Your task to perform on an android device: open app "Airtel Thanks" (install if not already installed) and go to login screen Image 0: 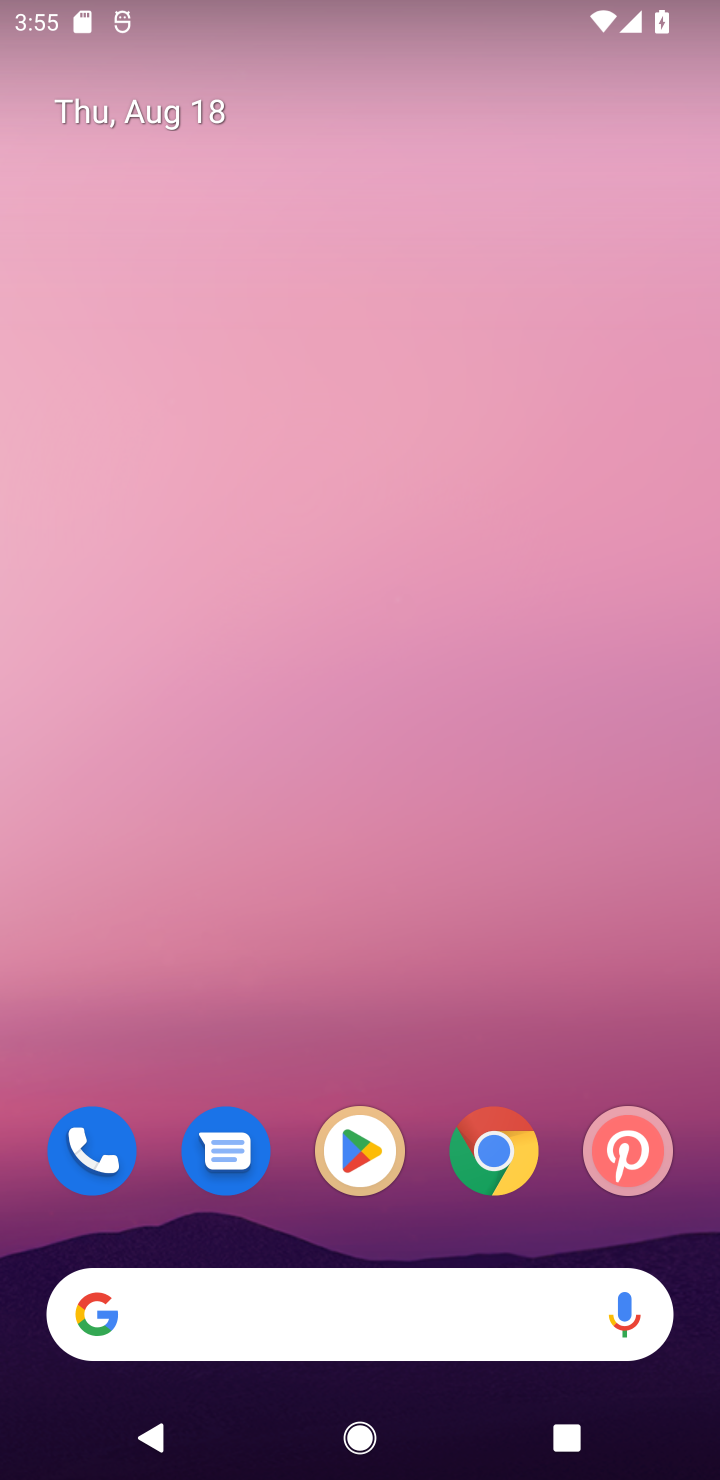
Step 0: click (382, 1125)
Your task to perform on an android device: open app "Airtel Thanks" (install if not already installed) and go to login screen Image 1: 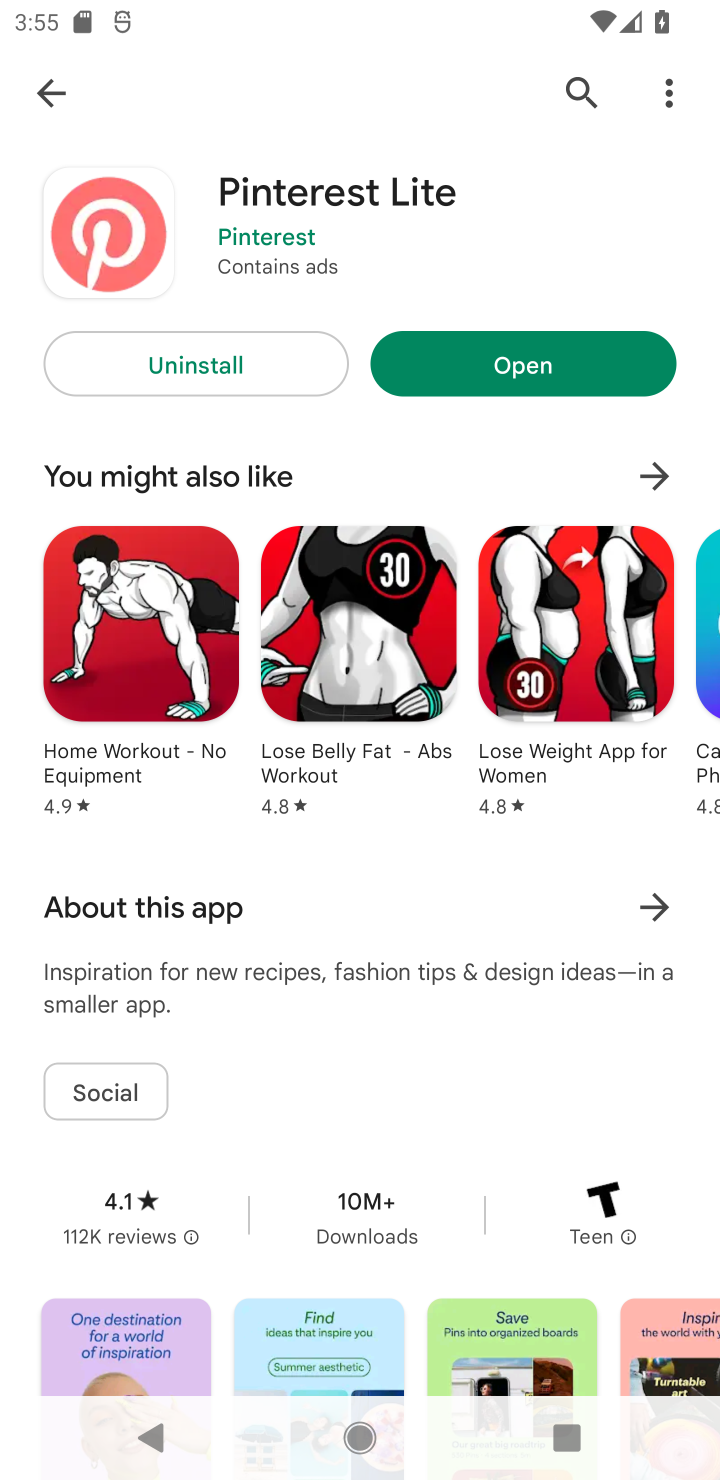
Step 1: click (553, 109)
Your task to perform on an android device: open app "Airtel Thanks" (install if not already installed) and go to login screen Image 2: 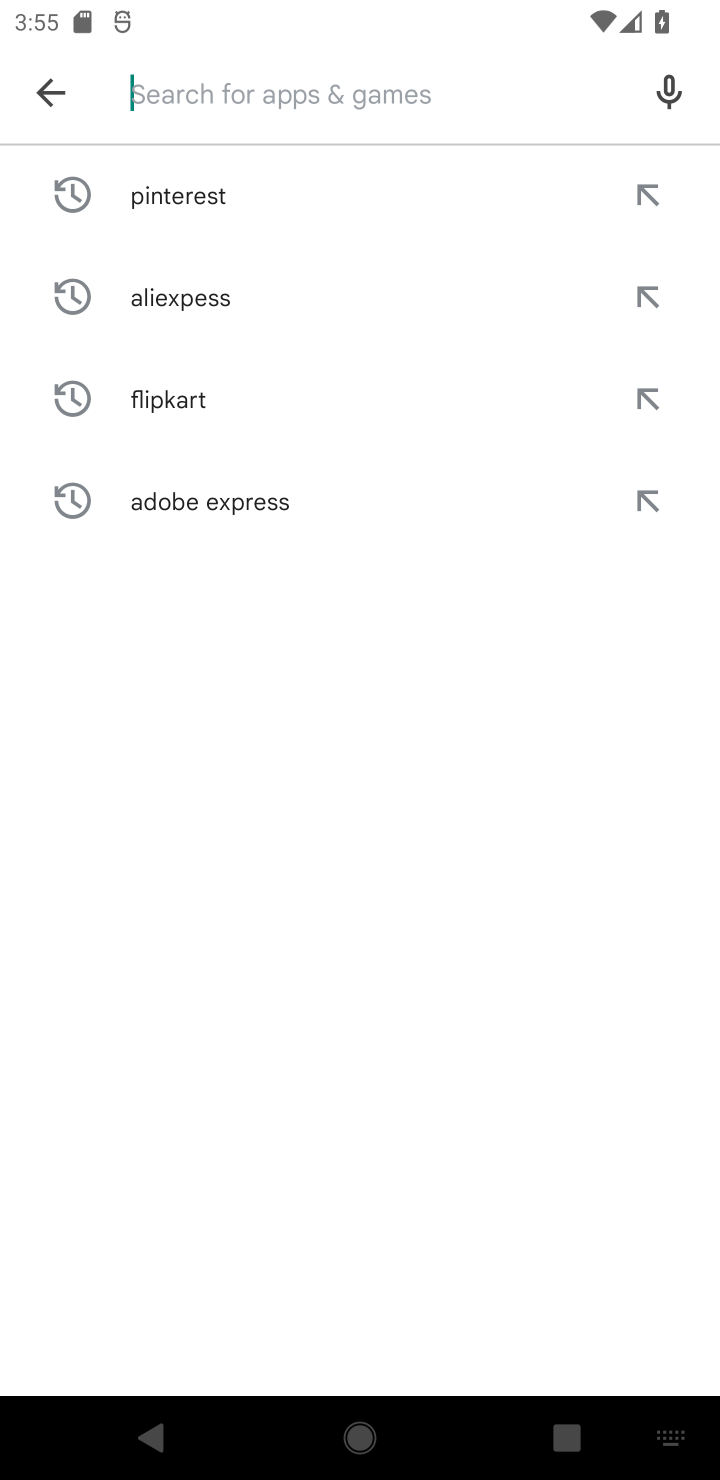
Step 2: click (674, 118)
Your task to perform on an android device: open app "Airtel Thanks" (install if not already installed) and go to login screen Image 3: 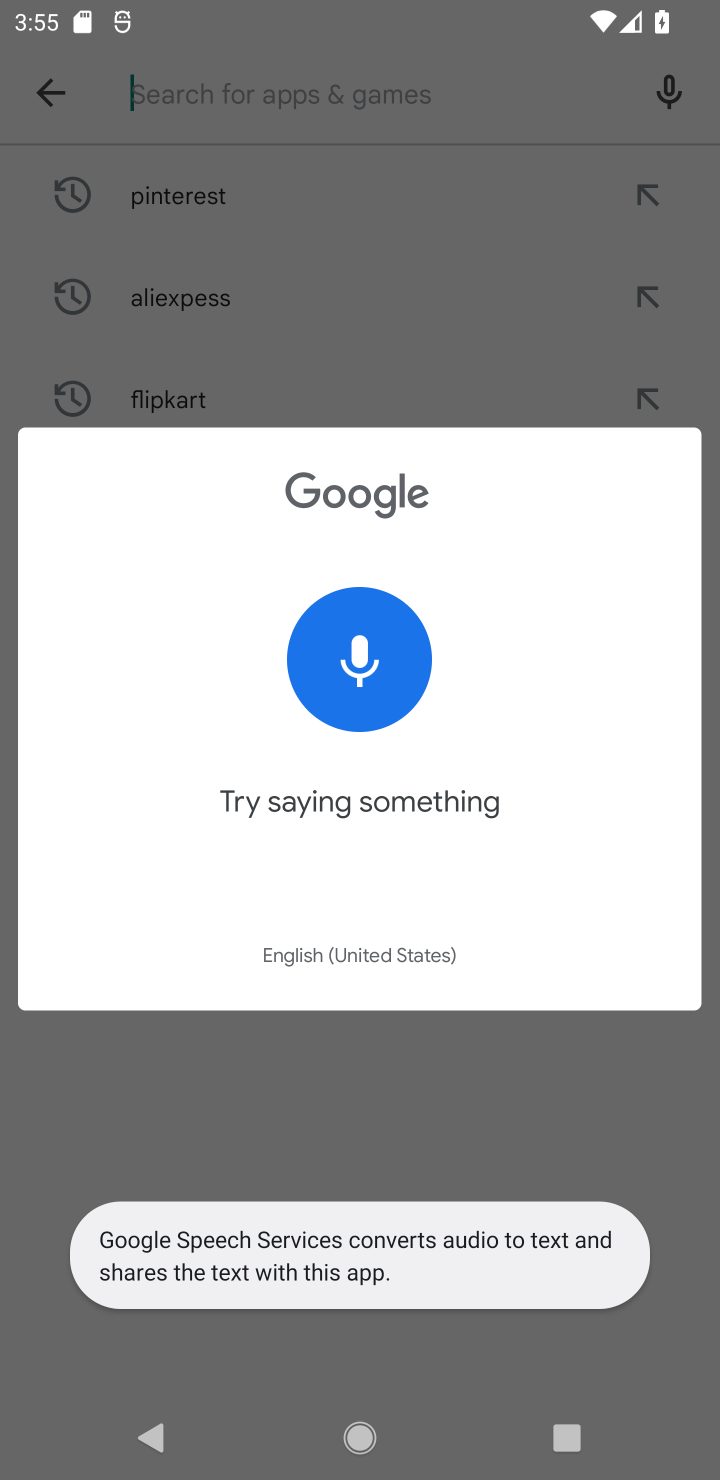
Step 3: click (67, 112)
Your task to perform on an android device: open app "Airtel Thanks" (install if not already installed) and go to login screen Image 4: 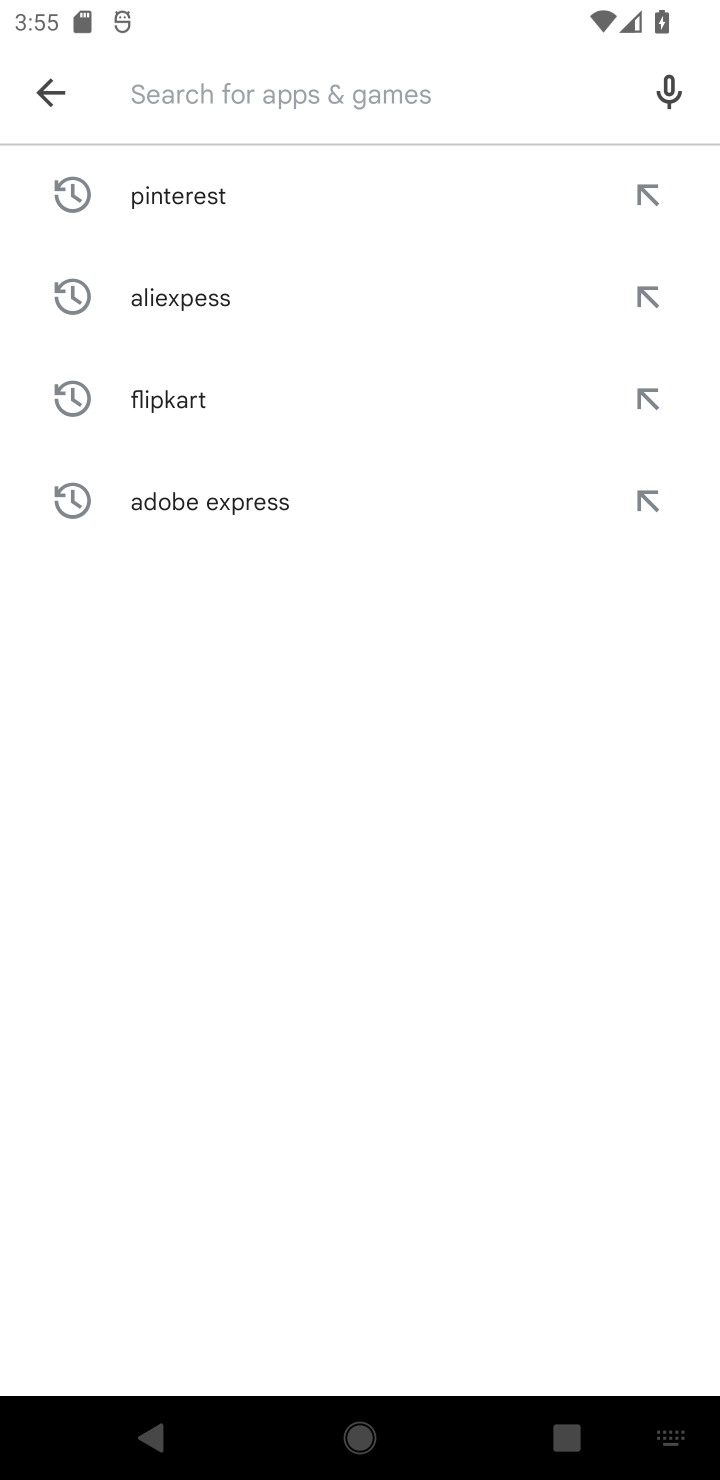
Step 4: type "airtel"
Your task to perform on an android device: open app "Airtel Thanks" (install if not already installed) and go to login screen Image 5: 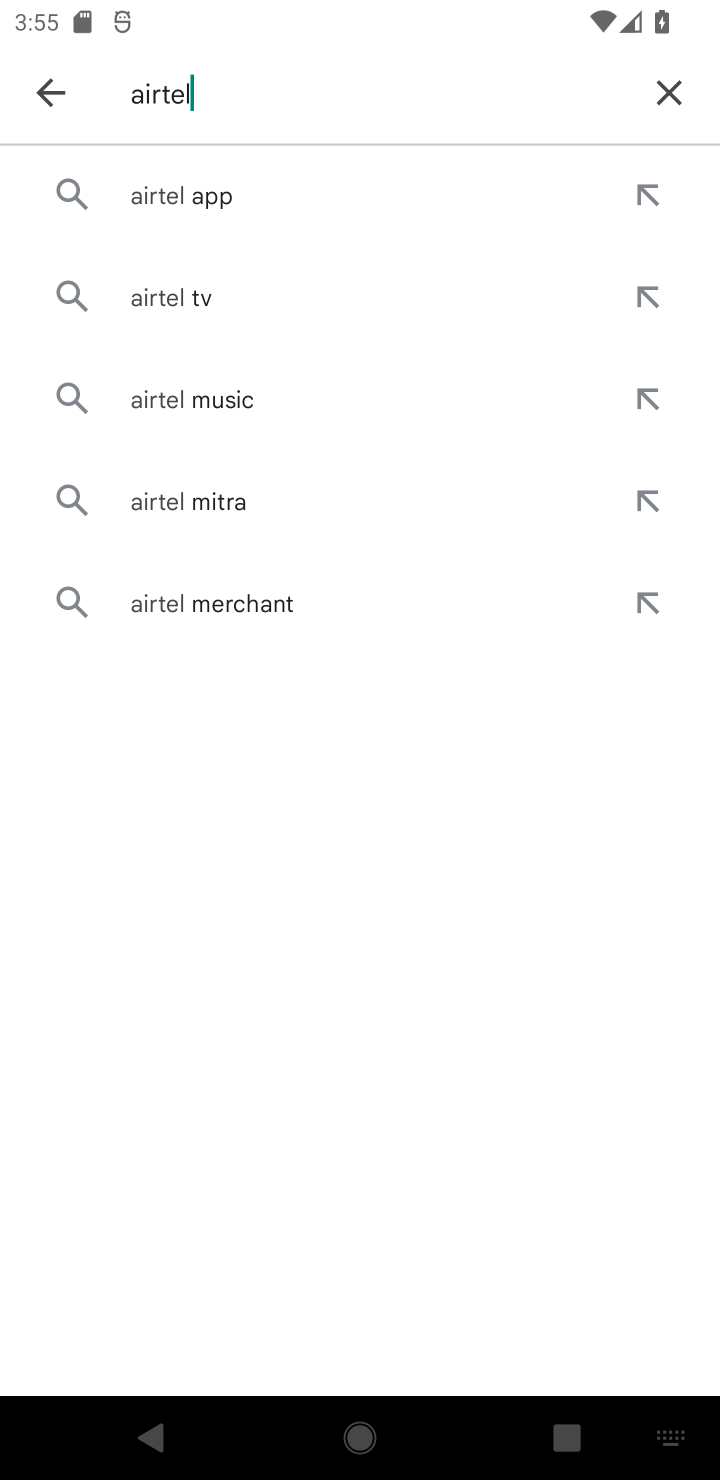
Step 5: click (259, 226)
Your task to perform on an android device: open app "Airtel Thanks" (install if not already installed) and go to login screen Image 6: 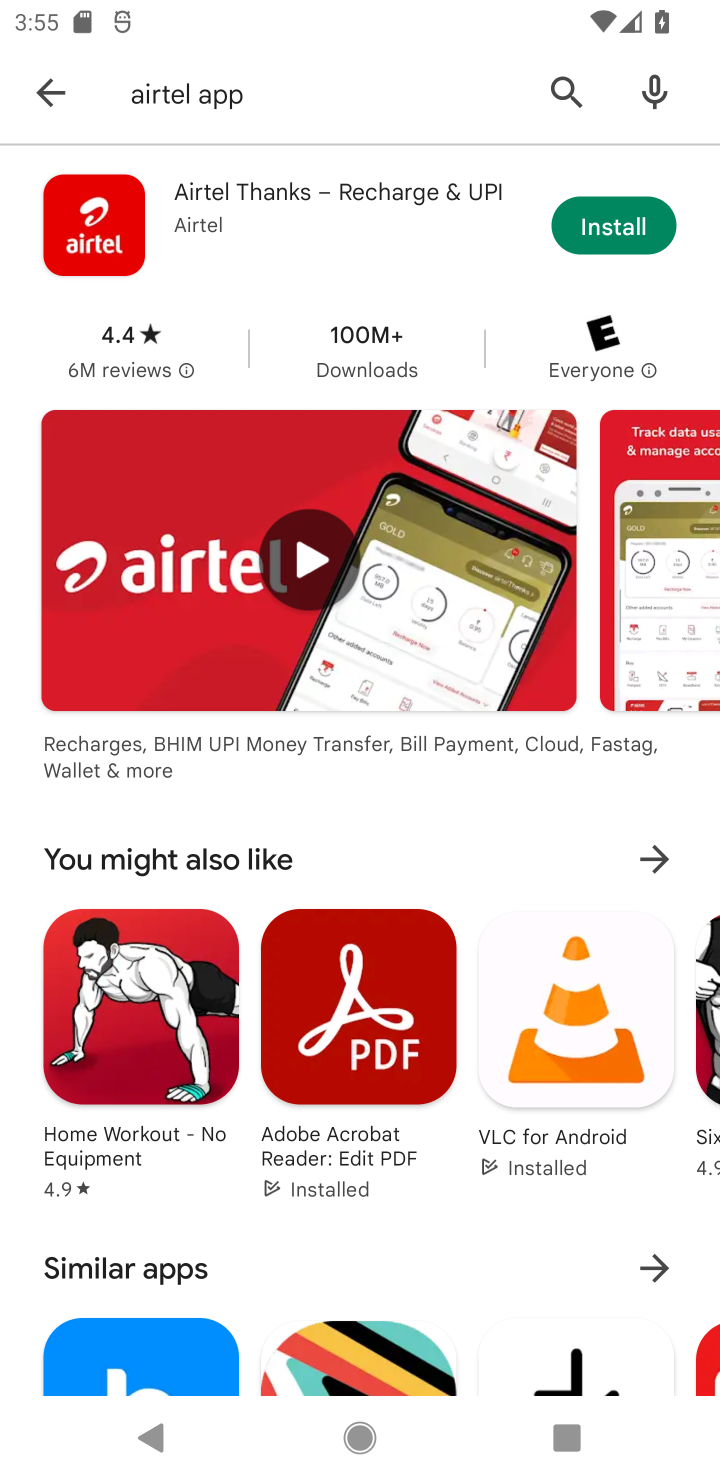
Step 6: click (584, 199)
Your task to perform on an android device: open app "Airtel Thanks" (install if not already installed) and go to login screen Image 7: 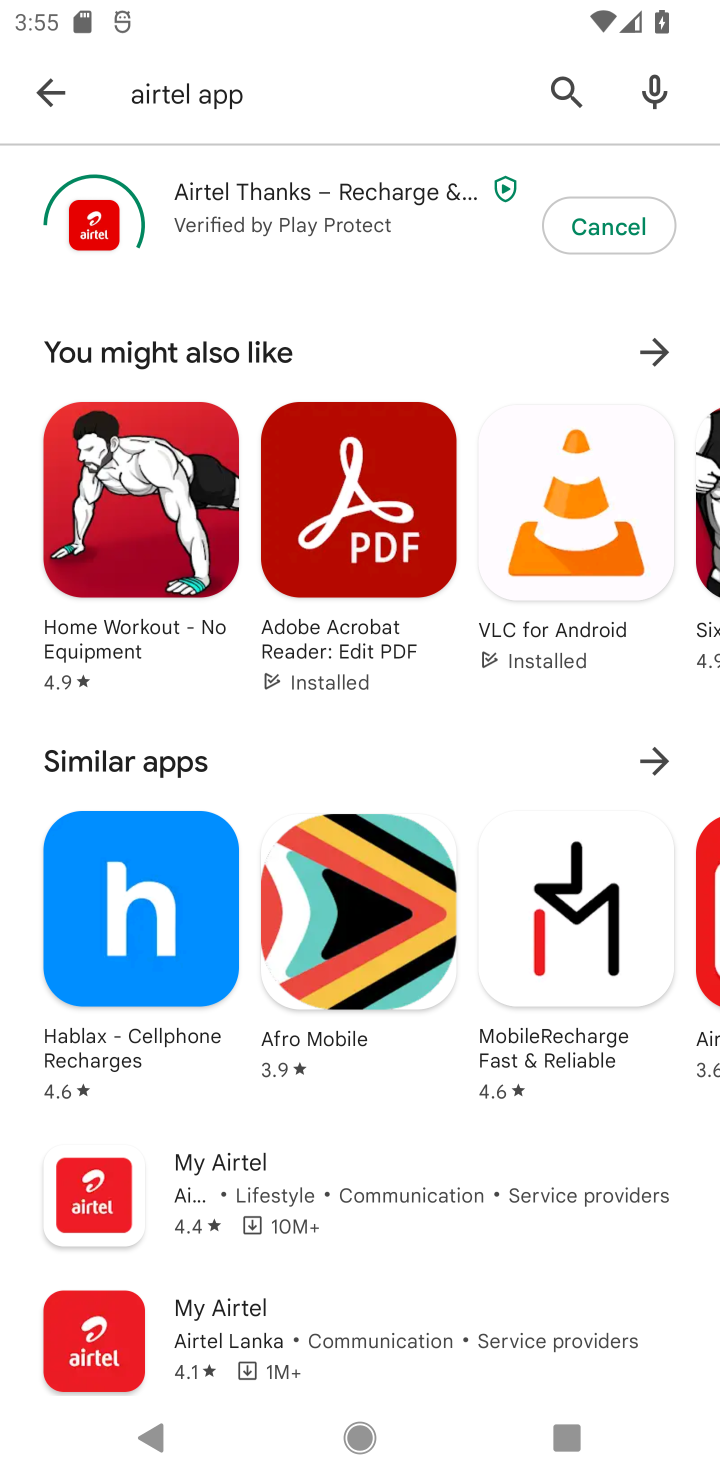
Step 7: task complete